Your task to perform on an android device: install app "VLC for Android" Image 0: 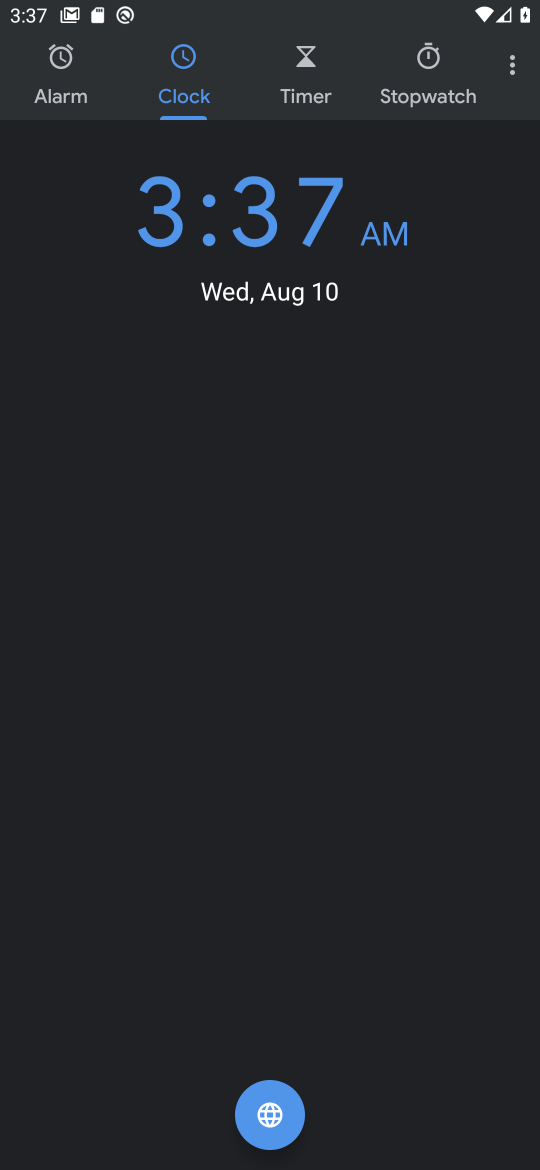
Step 0: press home button
Your task to perform on an android device: install app "VLC for Android" Image 1: 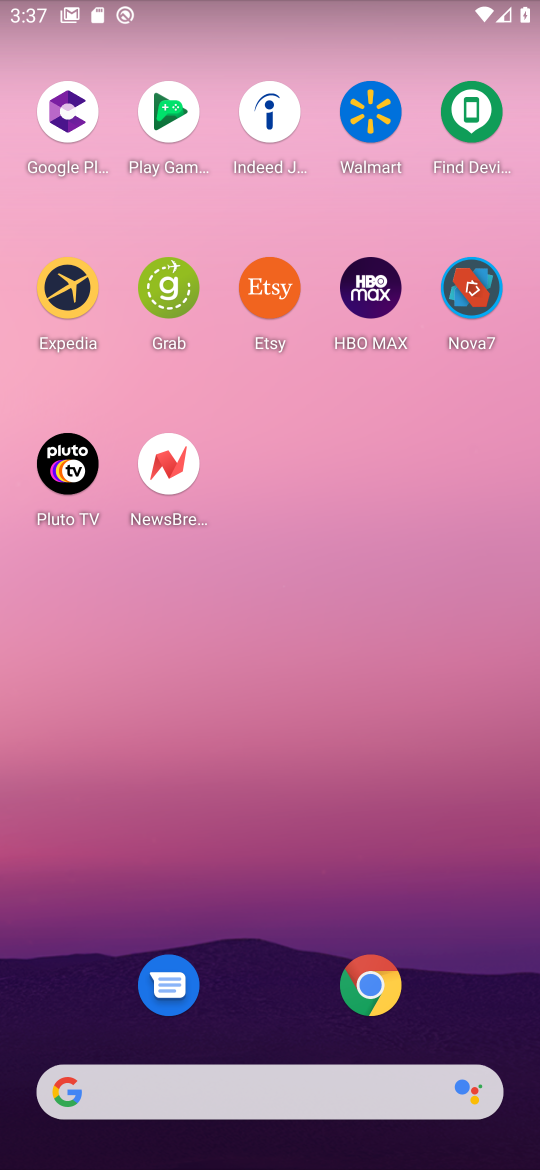
Step 1: drag from (262, 866) to (197, 32)
Your task to perform on an android device: install app "VLC for Android" Image 2: 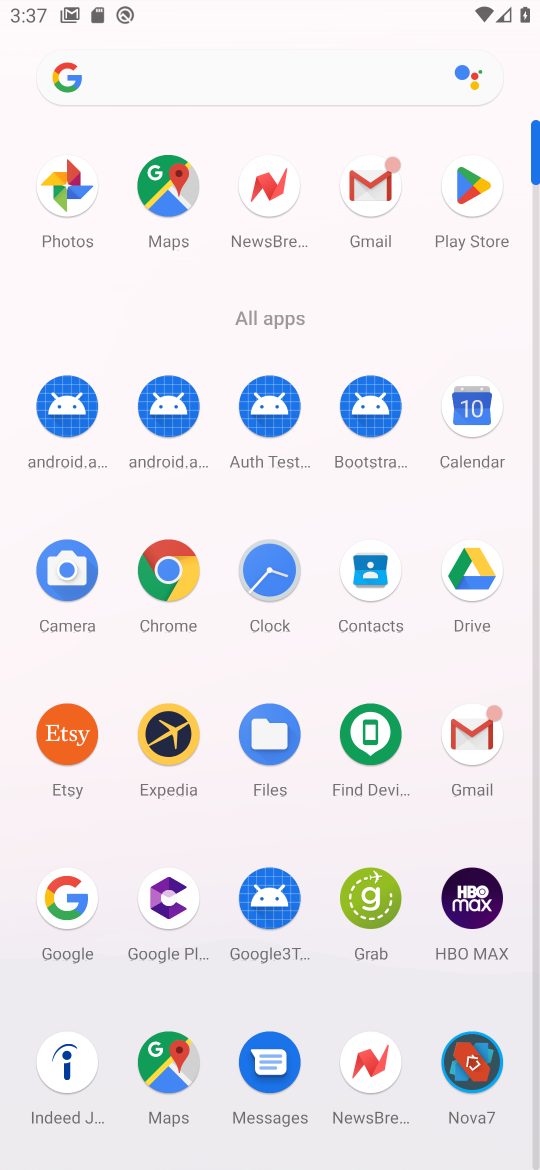
Step 2: click (473, 190)
Your task to perform on an android device: install app "VLC for Android" Image 3: 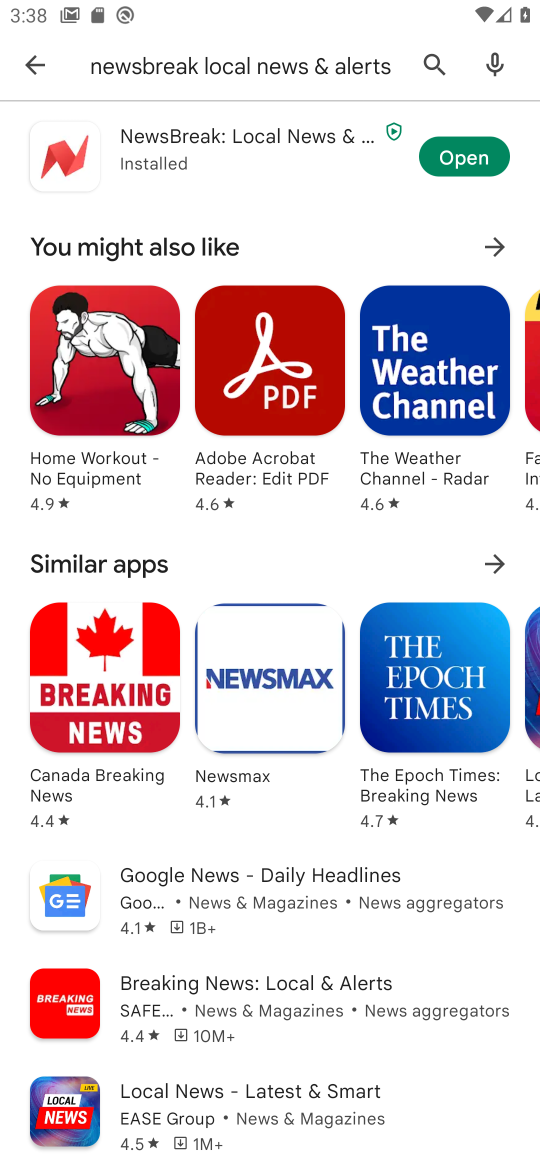
Step 3: click (29, 72)
Your task to perform on an android device: install app "VLC for Android" Image 4: 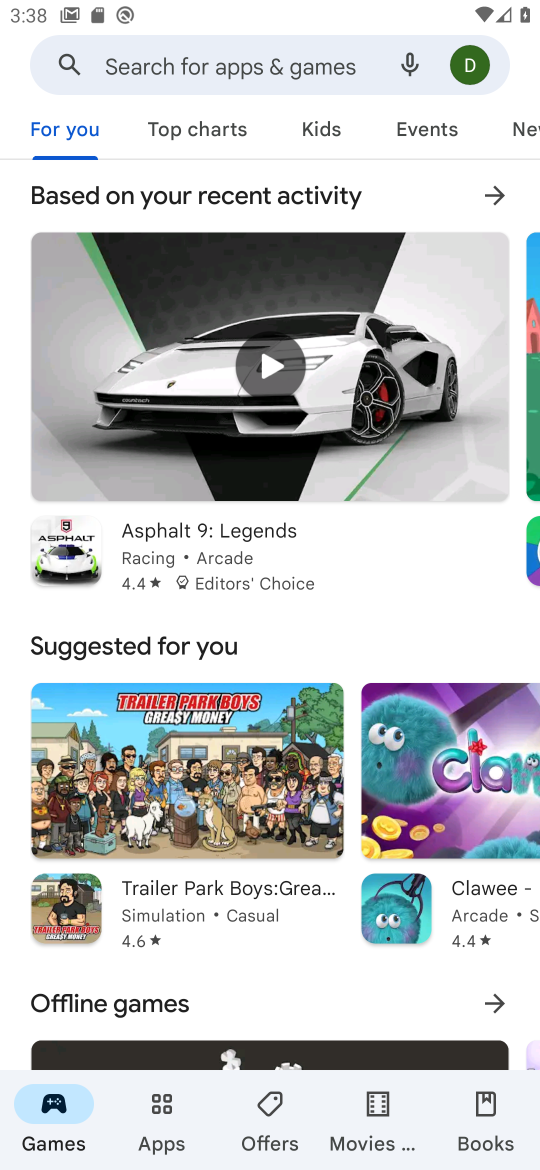
Step 4: click (263, 67)
Your task to perform on an android device: install app "VLC for Android" Image 5: 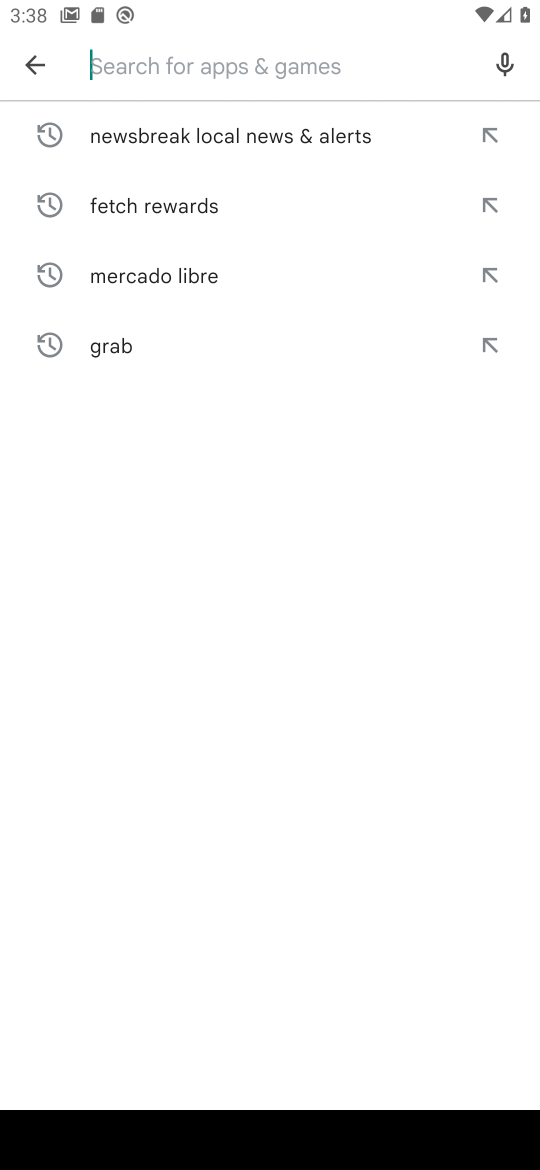
Step 5: type "VLC for Android"
Your task to perform on an android device: install app "VLC for Android" Image 6: 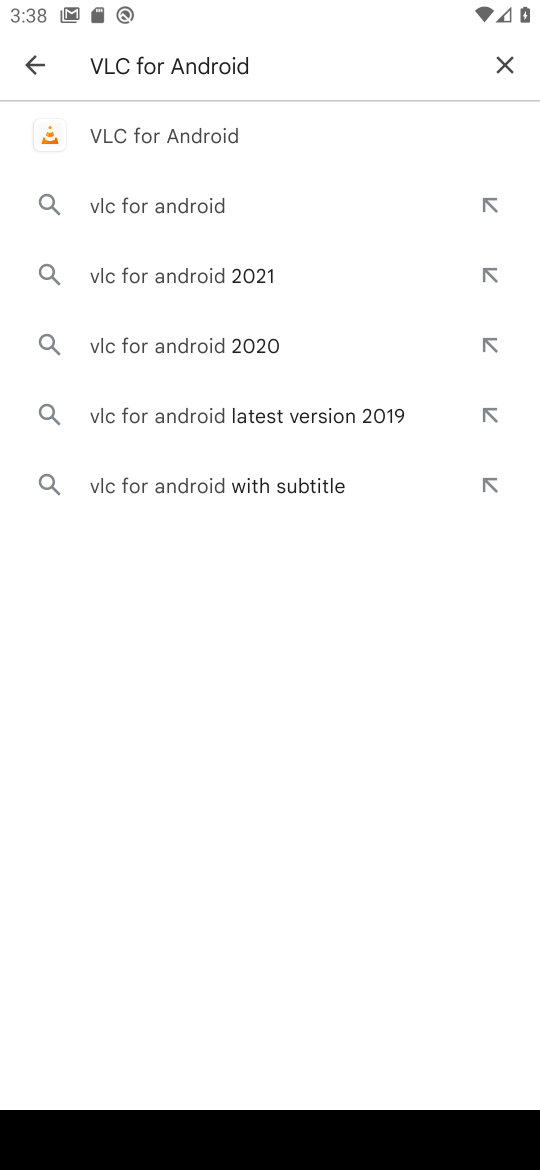
Step 6: click (241, 137)
Your task to perform on an android device: install app "VLC for Android" Image 7: 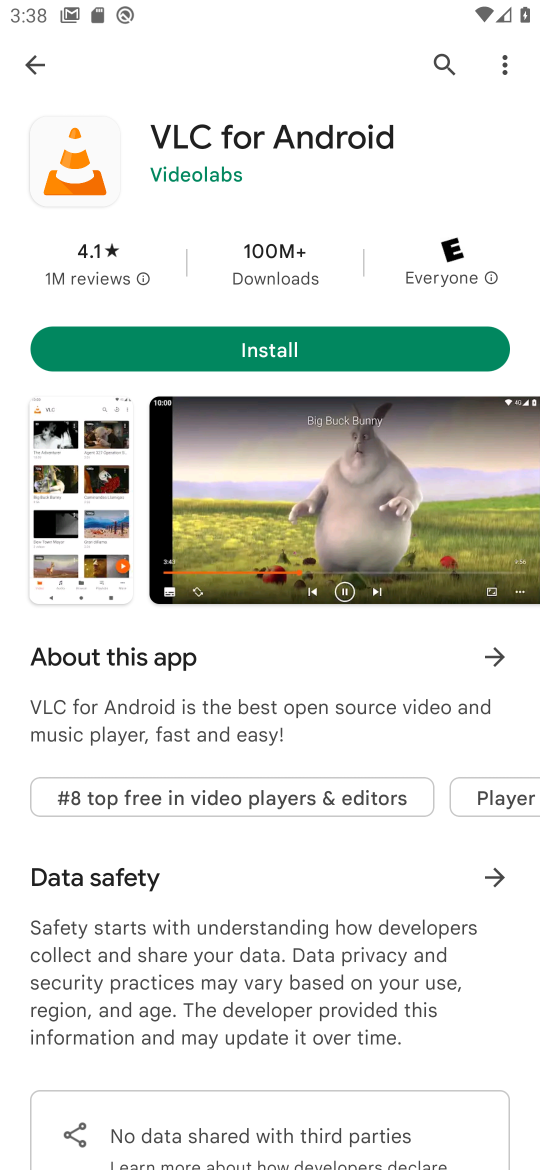
Step 7: click (244, 345)
Your task to perform on an android device: install app "VLC for Android" Image 8: 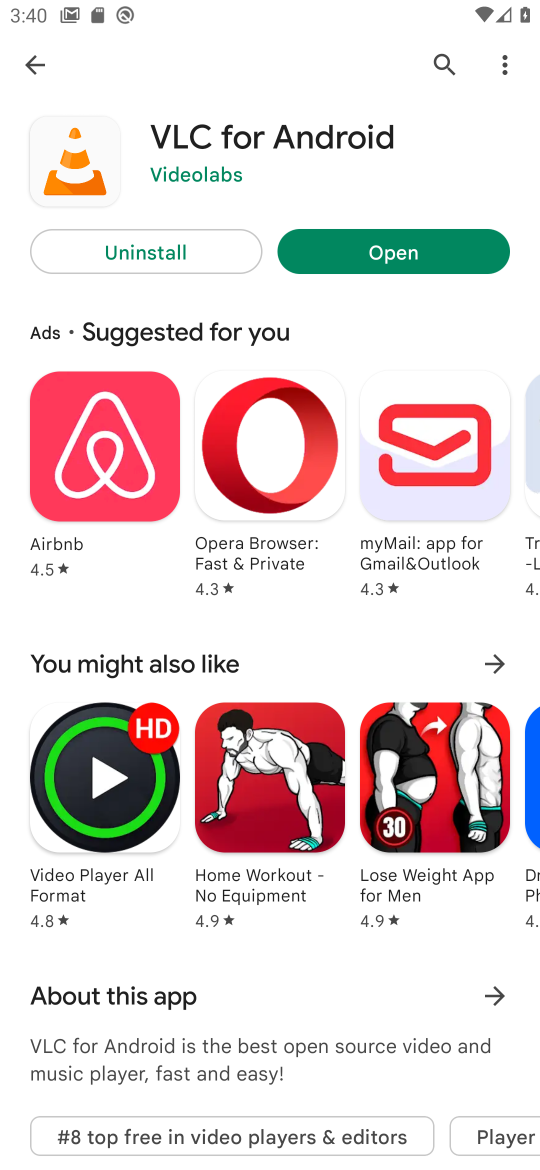
Step 8: task complete